Your task to perform on an android device: turn on translation in the chrome app Image 0: 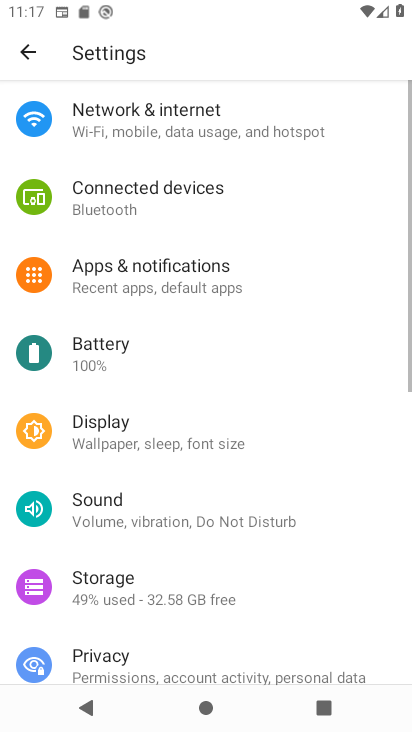
Step 0: press home button
Your task to perform on an android device: turn on translation in the chrome app Image 1: 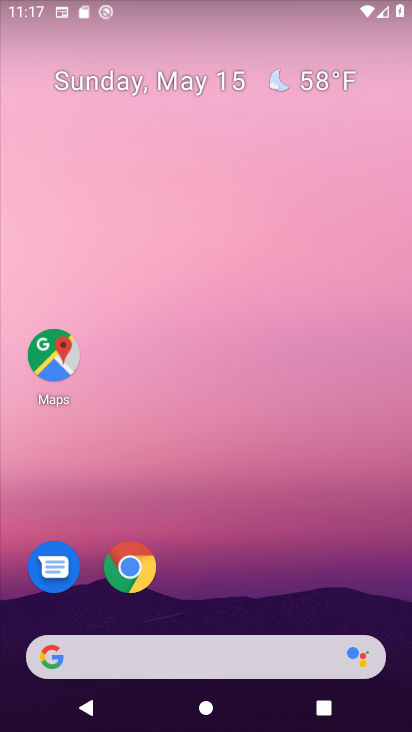
Step 1: click (139, 564)
Your task to perform on an android device: turn on translation in the chrome app Image 2: 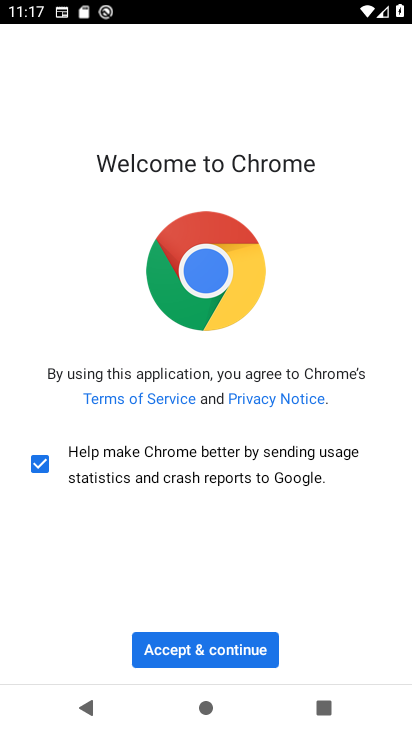
Step 2: click (235, 644)
Your task to perform on an android device: turn on translation in the chrome app Image 3: 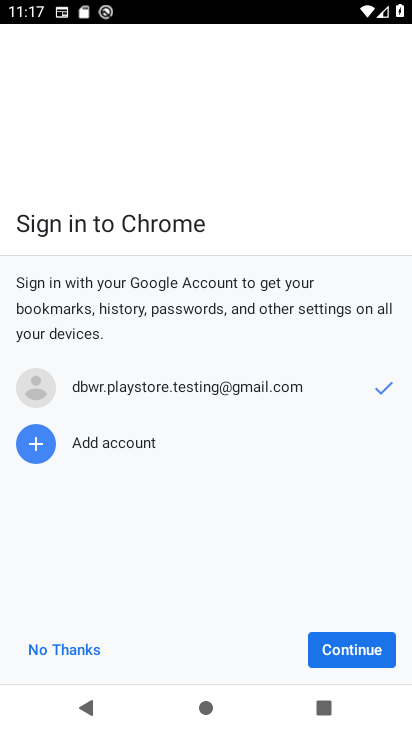
Step 3: click (319, 650)
Your task to perform on an android device: turn on translation in the chrome app Image 4: 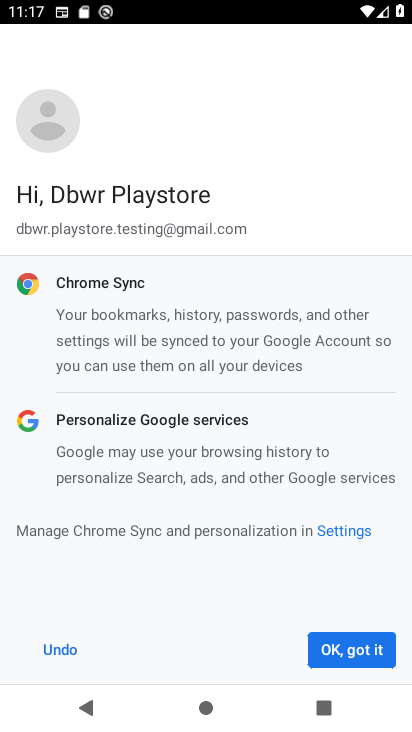
Step 4: click (319, 650)
Your task to perform on an android device: turn on translation in the chrome app Image 5: 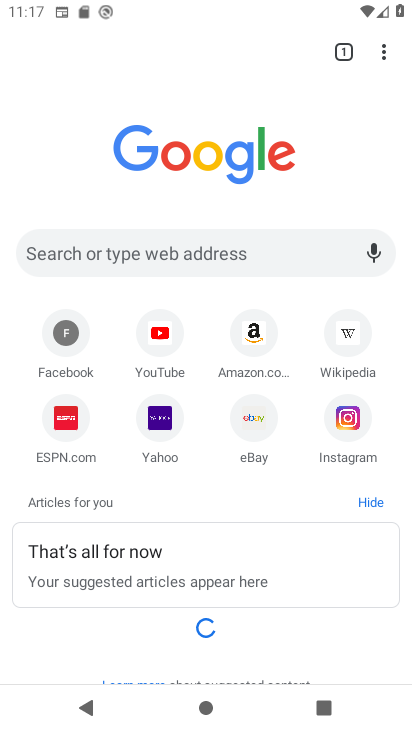
Step 5: click (394, 61)
Your task to perform on an android device: turn on translation in the chrome app Image 6: 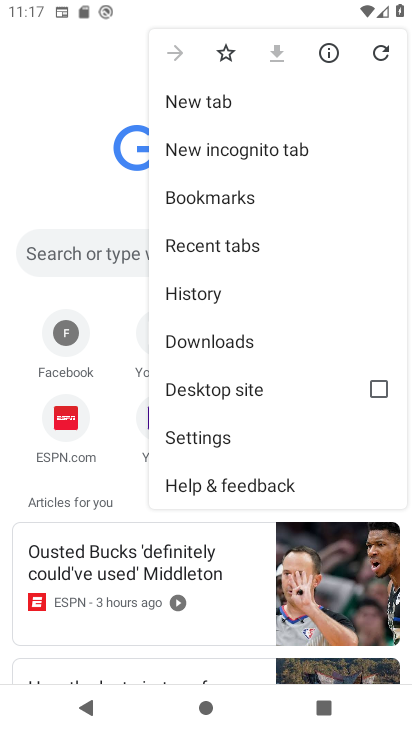
Step 6: click (185, 442)
Your task to perform on an android device: turn on translation in the chrome app Image 7: 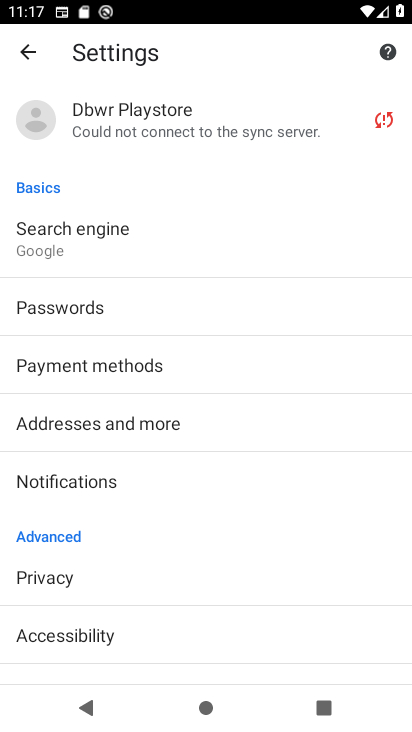
Step 7: drag from (242, 633) to (291, 69)
Your task to perform on an android device: turn on translation in the chrome app Image 8: 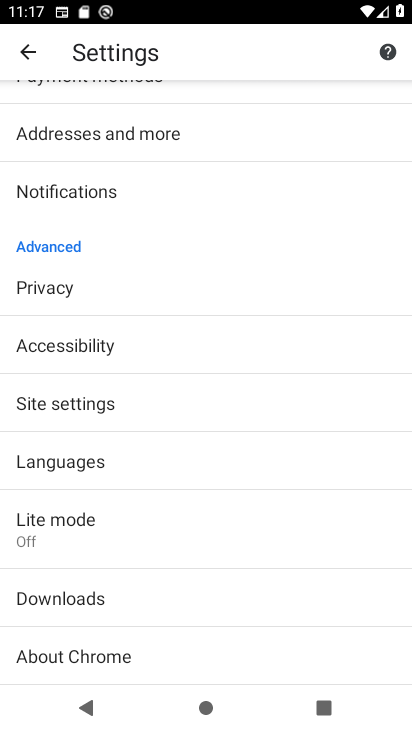
Step 8: click (93, 460)
Your task to perform on an android device: turn on translation in the chrome app Image 9: 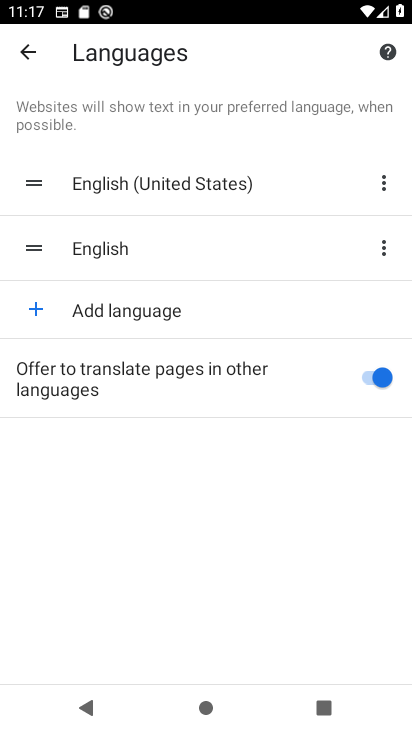
Step 9: task complete